Your task to perform on an android device: toggle sleep mode Image 0: 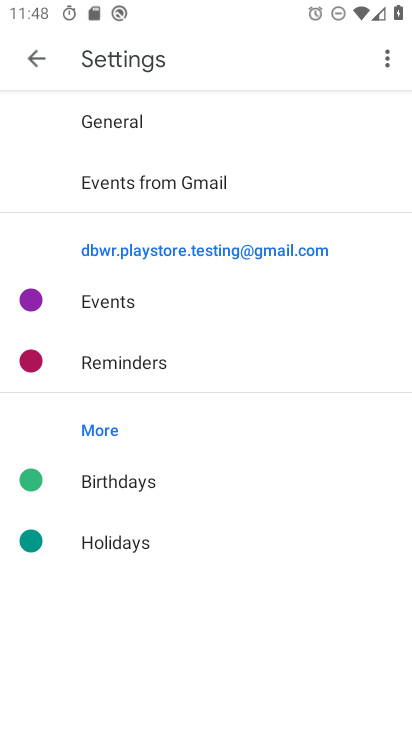
Step 0: press home button
Your task to perform on an android device: toggle sleep mode Image 1: 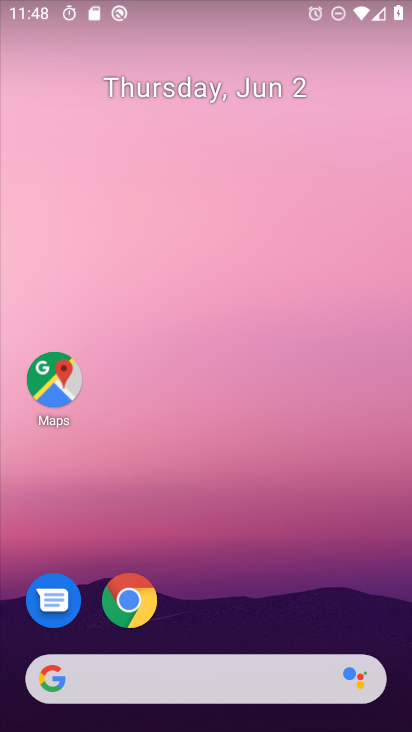
Step 1: drag from (261, 553) to (319, 0)
Your task to perform on an android device: toggle sleep mode Image 2: 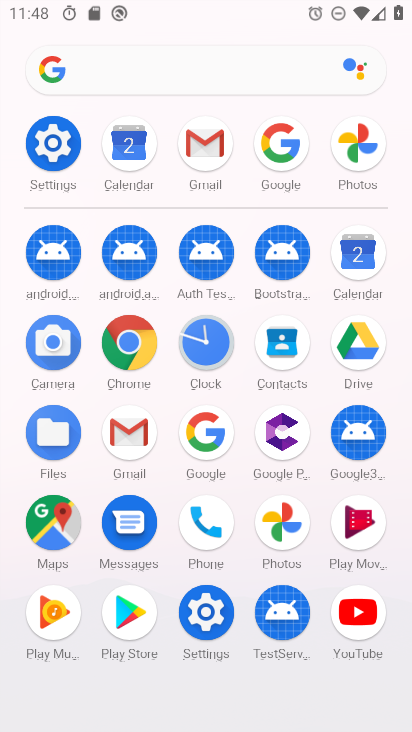
Step 2: click (205, 612)
Your task to perform on an android device: toggle sleep mode Image 3: 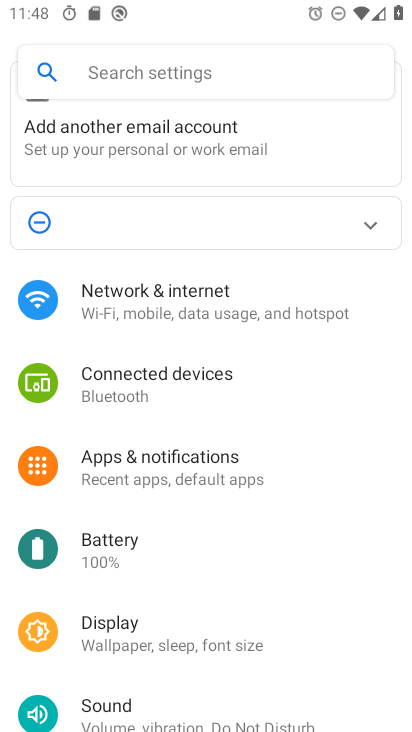
Step 3: click (201, 634)
Your task to perform on an android device: toggle sleep mode Image 4: 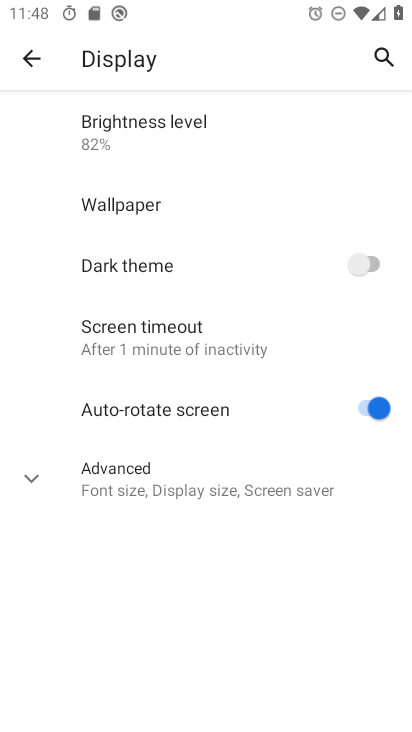
Step 4: click (187, 340)
Your task to perform on an android device: toggle sleep mode Image 5: 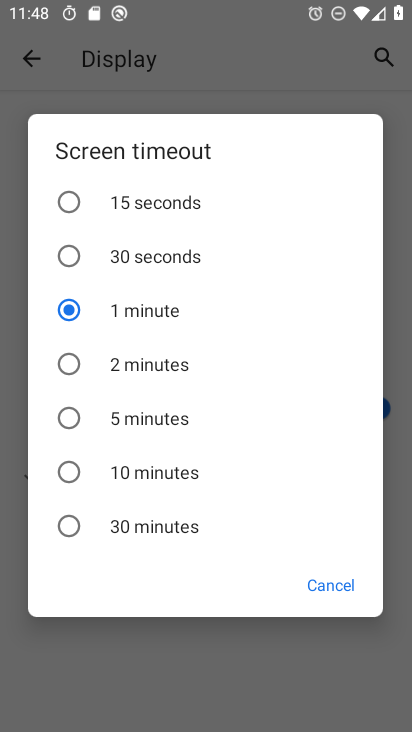
Step 5: click (72, 352)
Your task to perform on an android device: toggle sleep mode Image 6: 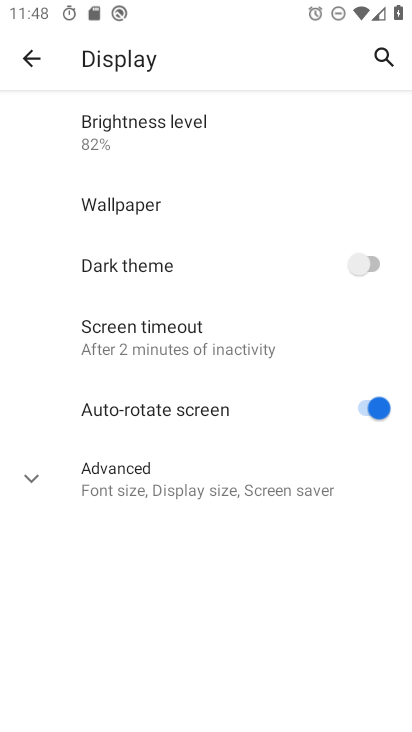
Step 6: task complete